Your task to perform on an android device: Open CNN.com Image 0: 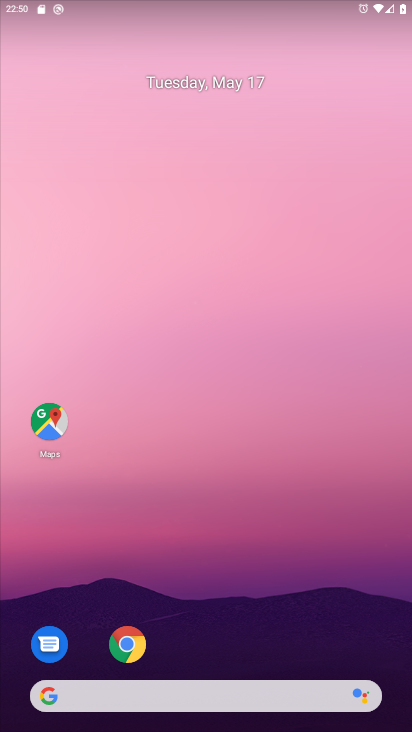
Step 0: press home button
Your task to perform on an android device: Open CNN.com Image 1: 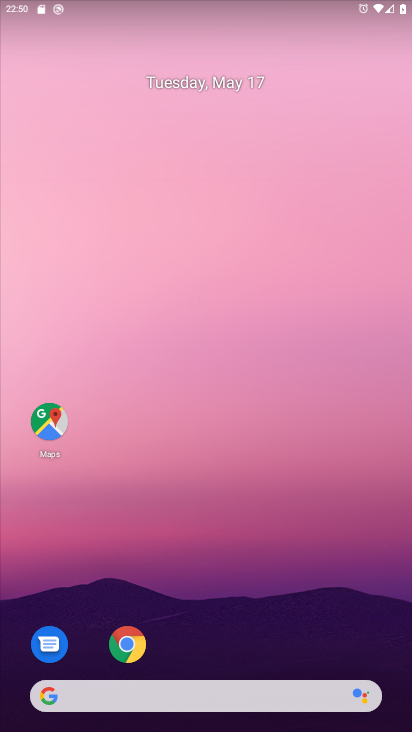
Step 1: click (124, 639)
Your task to perform on an android device: Open CNN.com Image 2: 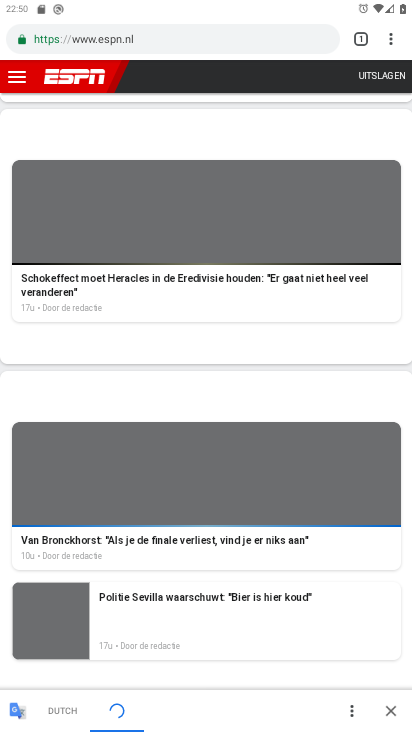
Step 2: click (359, 36)
Your task to perform on an android device: Open CNN.com Image 3: 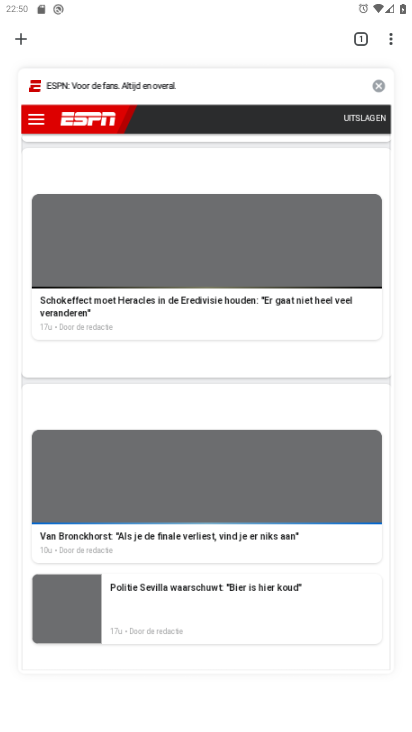
Step 3: click (21, 40)
Your task to perform on an android device: Open CNN.com Image 4: 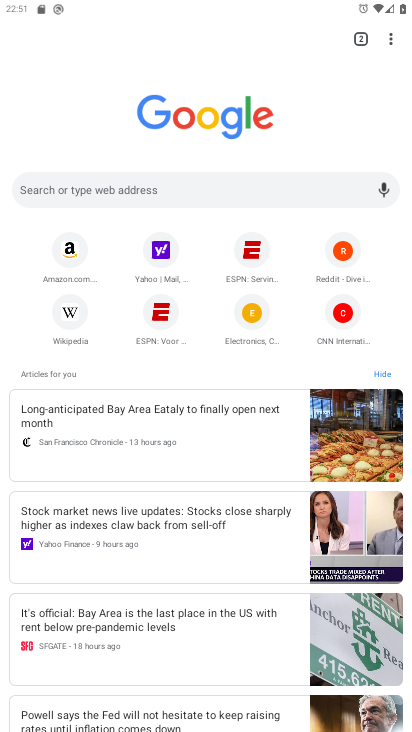
Step 4: click (338, 315)
Your task to perform on an android device: Open CNN.com Image 5: 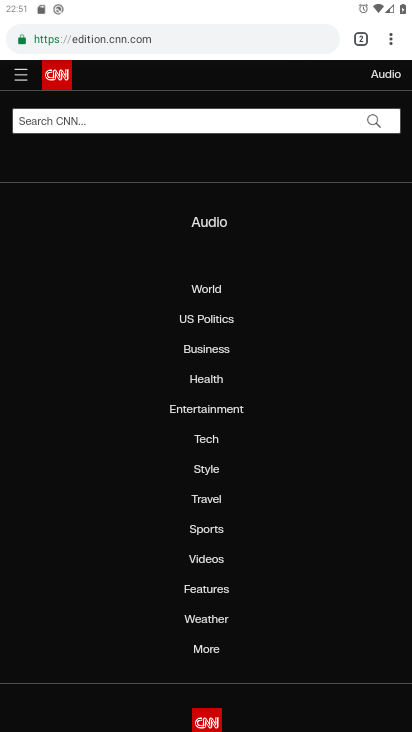
Step 5: task complete